Your task to perform on an android device: turn on notifications settings in the gmail app Image 0: 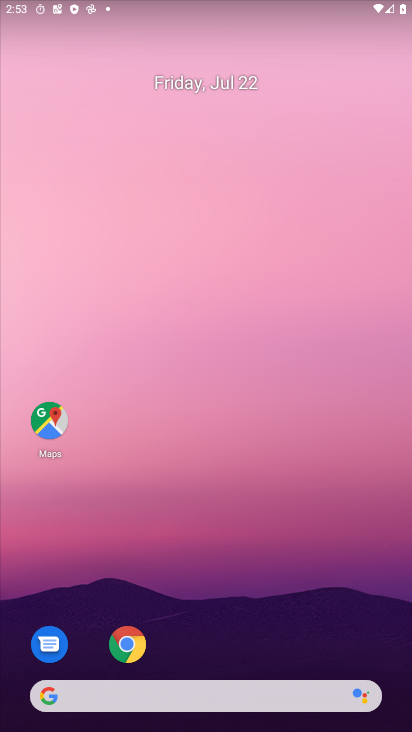
Step 0: drag from (189, 605) to (172, 170)
Your task to perform on an android device: turn on notifications settings in the gmail app Image 1: 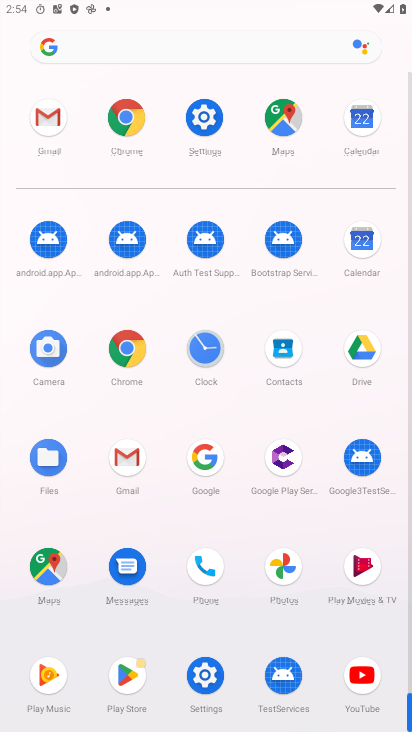
Step 1: click (188, 145)
Your task to perform on an android device: turn on notifications settings in the gmail app Image 2: 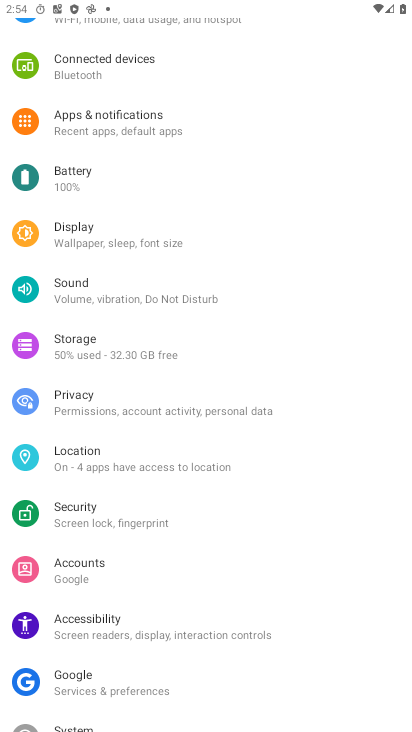
Step 2: drag from (147, 376) to (170, 576)
Your task to perform on an android device: turn on notifications settings in the gmail app Image 3: 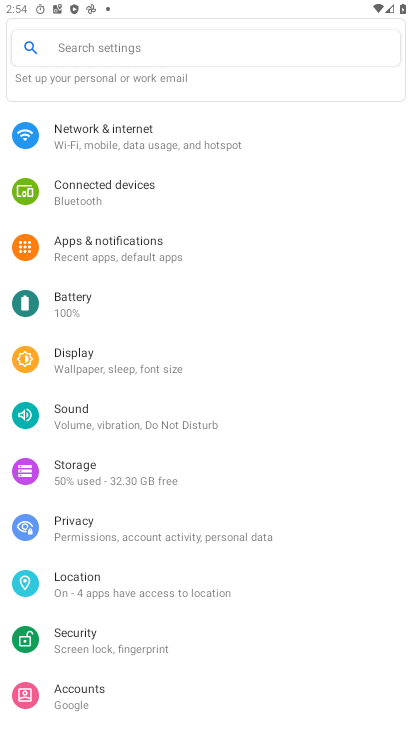
Step 3: click (109, 262)
Your task to perform on an android device: turn on notifications settings in the gmail app Image 4: 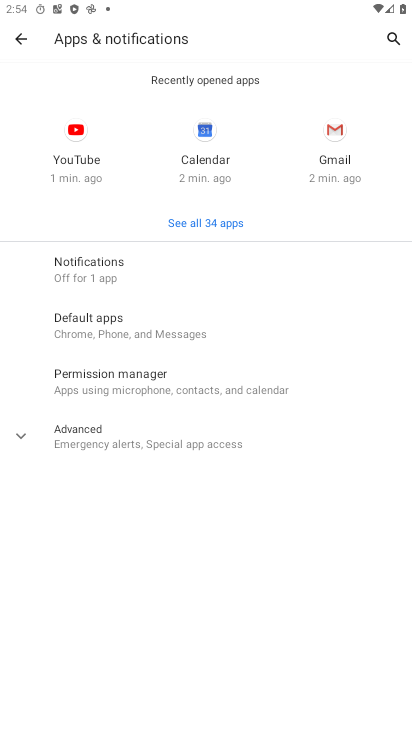
Step 4: press home button
Your task to perform on an android device: turn on notifications settings in the gmail app Image 5: 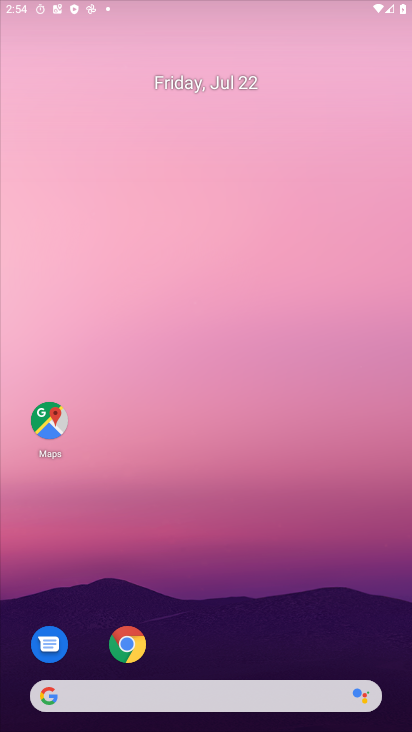
Step 5: drag from (186, 715) to (142, 232)
Your task to perform on an android device: turn on notifications settings in the gmail app Image 6: 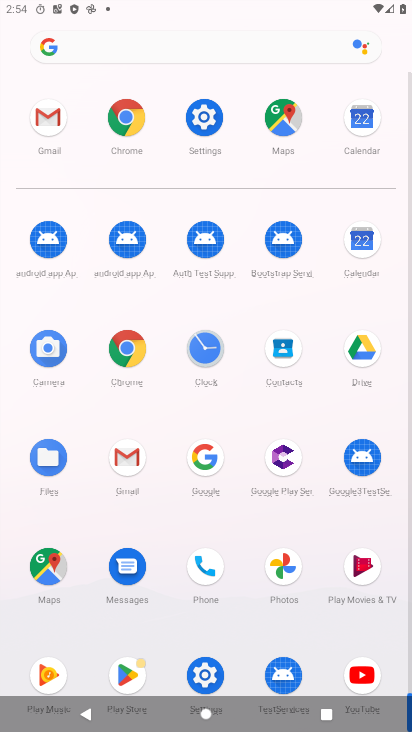
Step 6: click (135, 477)
Your task to perform on an android device: turn on notifications settings in the gmail app Image 7: 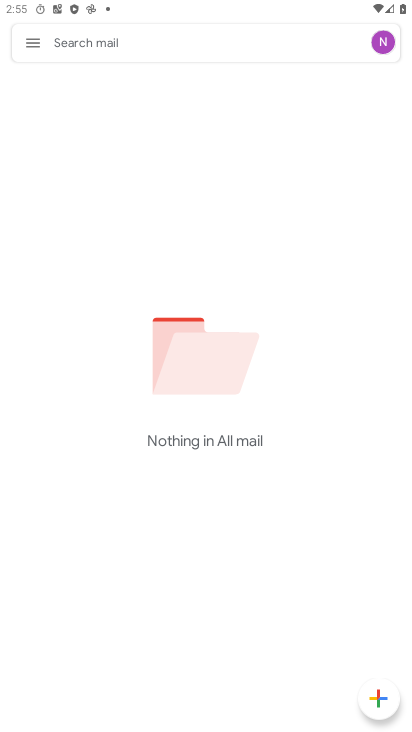
Step 7: click (37, 51)
Your task to perform on an android device: turn on notifications settings in the gmail app Image 8: 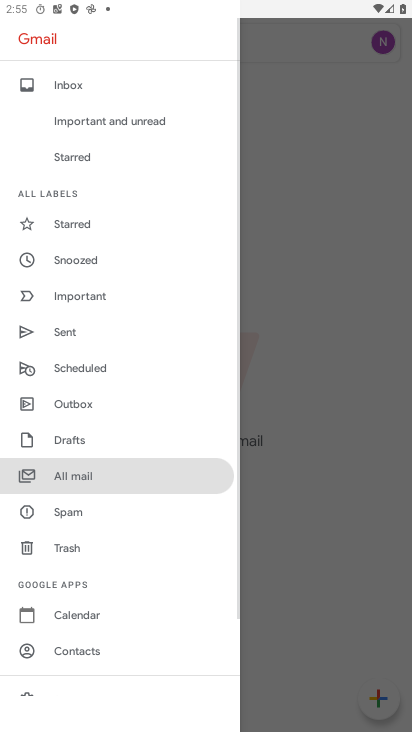
Step 8: drag from (91, 570) to (67, 205)
Your task to perform on an android device: turn on notifications settings in the gmail app Image 9: 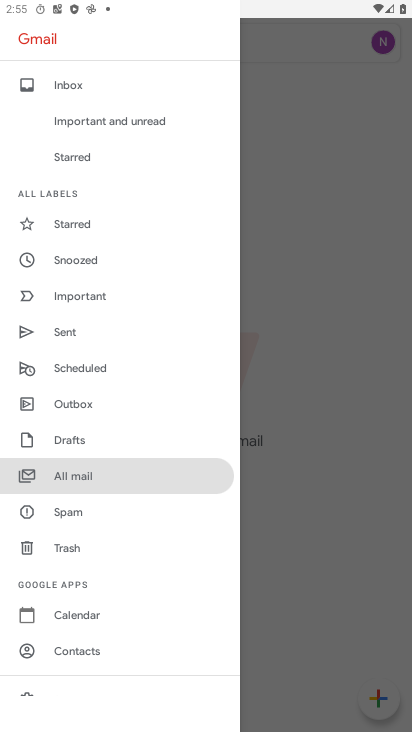
Step 9: drag from (87, 609) to (134, 250)
Your task to perform on an android device: turn on notifications settings in the gmail app Image 10: 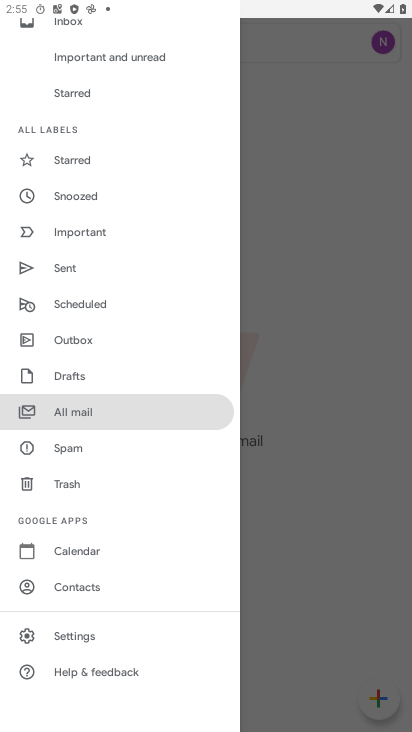
Step 10: click (107, 633)
Your task to perform on an android device: turn on notifications settings in the gmail app Image 11: 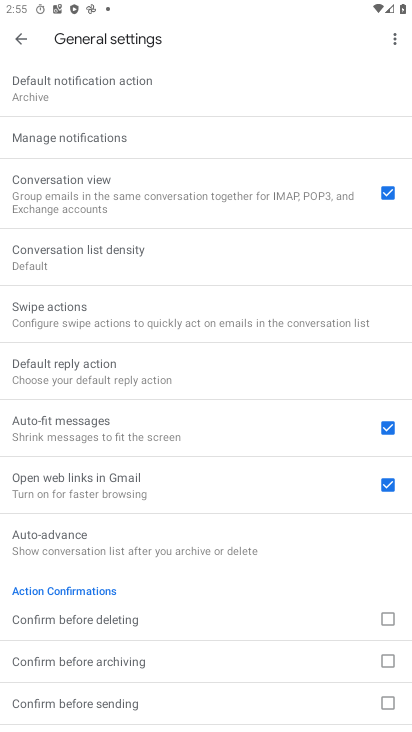
Step 11: click (74, 140)
Your task to perform on an android device: turn on notifications settings in the gmail app Image 12: 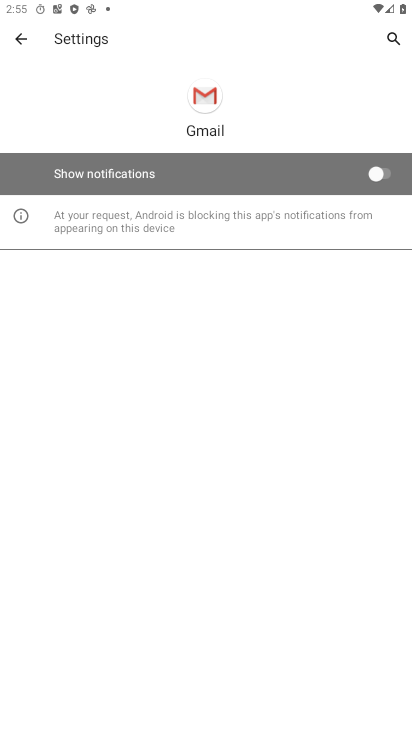
Step 12: click (263, 180)
Your task to perform on an android device: turn on notifications settings in the gmail app Image 13: 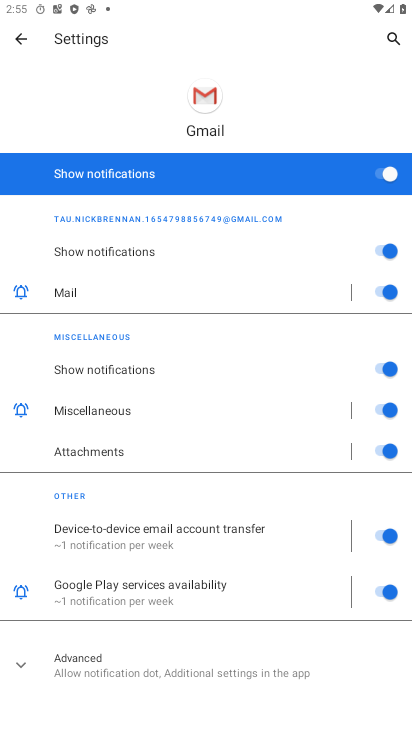
Step 13: task complete